Your task to perform on an android device: change notifications settings Image 0: 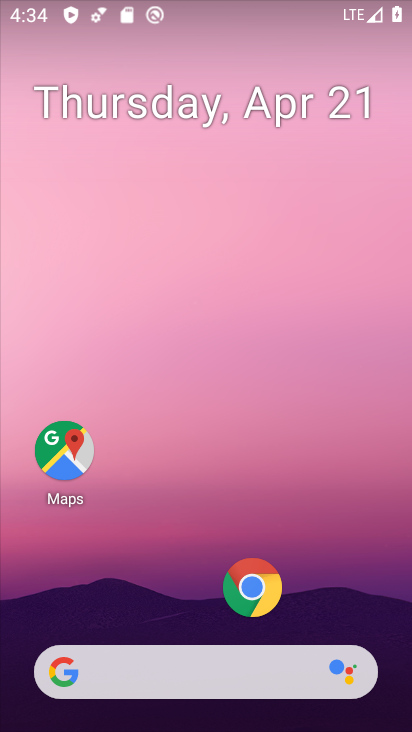
Step 0: drag from (148, 480) to (250, 109)
Your task to perform on an android device: change notifications settings Image 1: 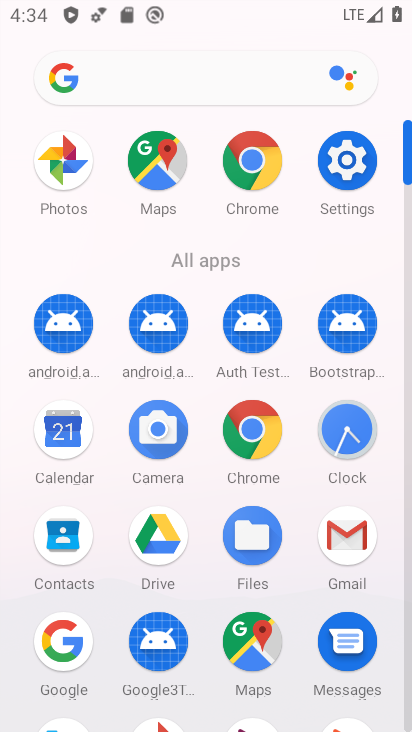
Step 1: click (356, 164)
Your task to perform on an android device: change notifications settings Image 2: 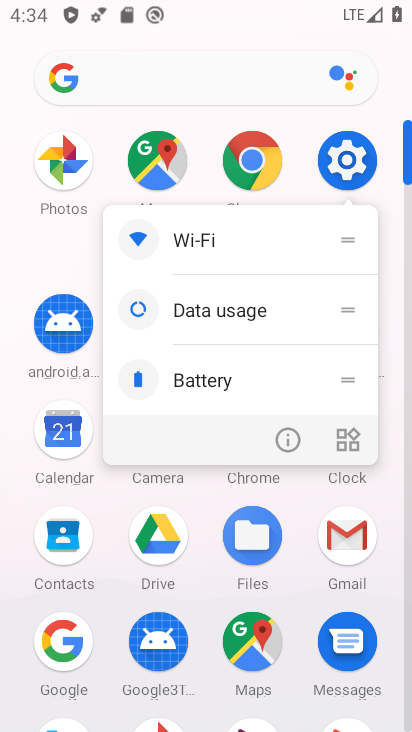
Step 2: click (353, 155)
Your task to perform on an android device: change notifications settings Image 3: 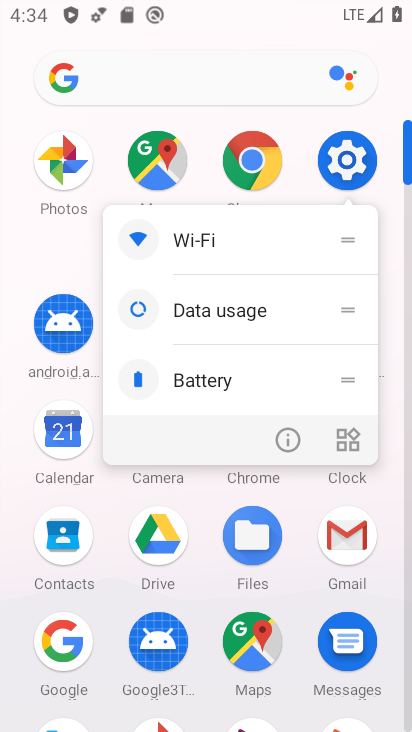
Step 3: click (356, 163)
Your task to perform on an android device: change notifications settings Image 4: 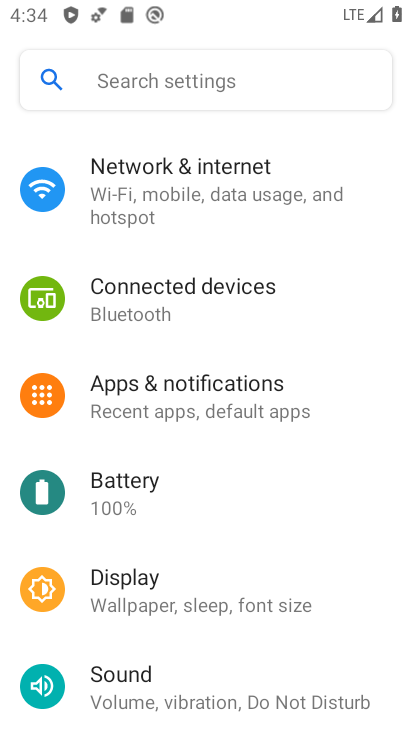
Step 4: drag from (202, 605) to (288, 347)
Your task to perform on an android device: change notifications settings Image 5: 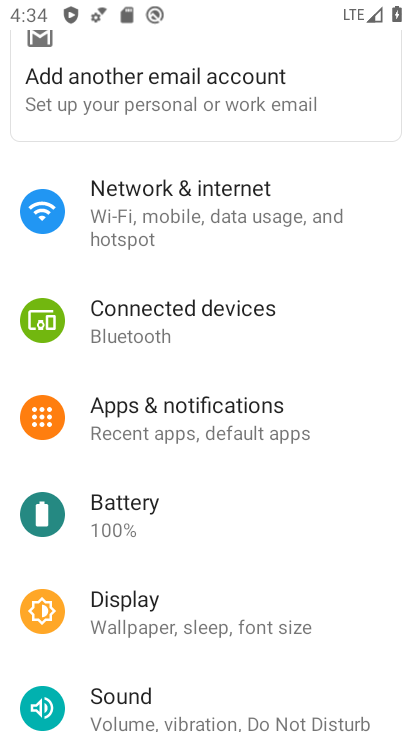
Step 5: click (242, 423)
Your task to perform on an android device: change notifications settings Image 6: 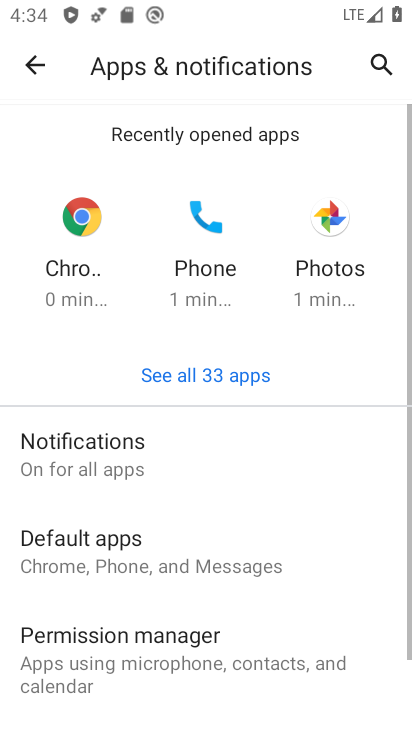
Step 6: click (172, 469)
Your task to perform on an android device: change notifications settings Image 7: 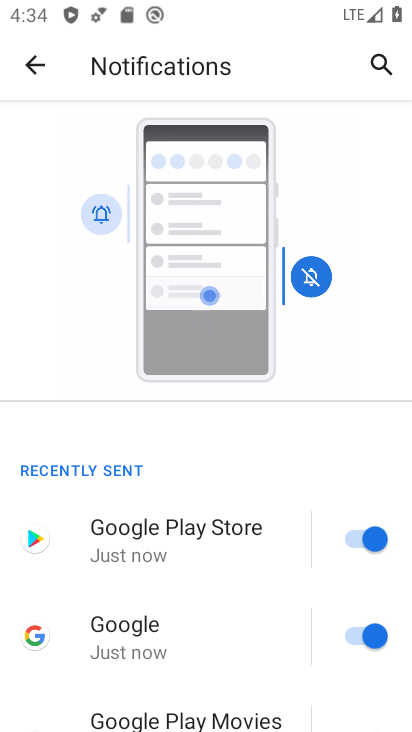
Step 7: click (351, 536)
Your task to perform on an android device: change notifications settings Image 8: 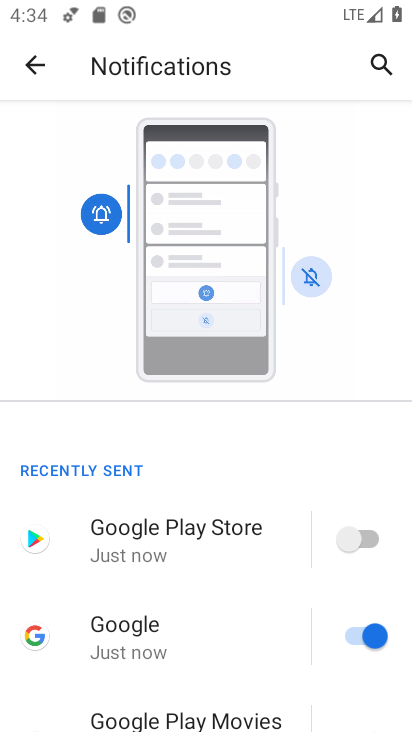
Step 8: click (361, 637)
Your task to perform on an android device: change notifications settings Image 9: 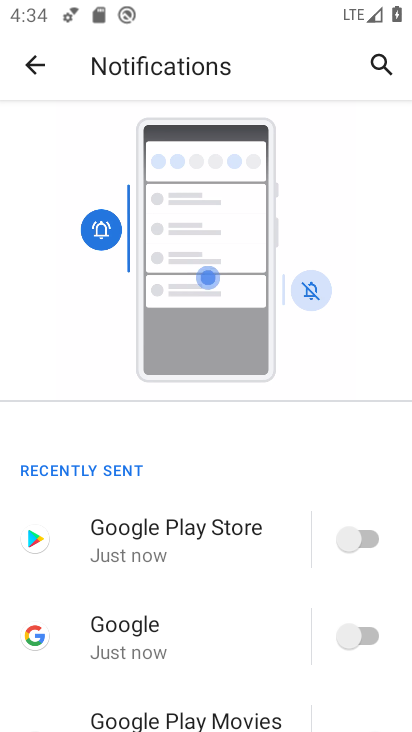
Step 9: drag from (225, 670) to (408, 305)
Your task to perform on an android device: change notifications settings Image 10: 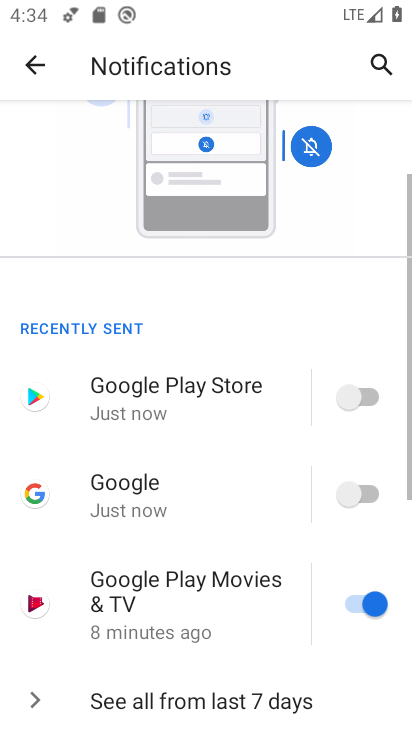
Step 10: drag from (207, 666) to (410, 322)
Your task to perform on an android device: change notifications settings Image 11: 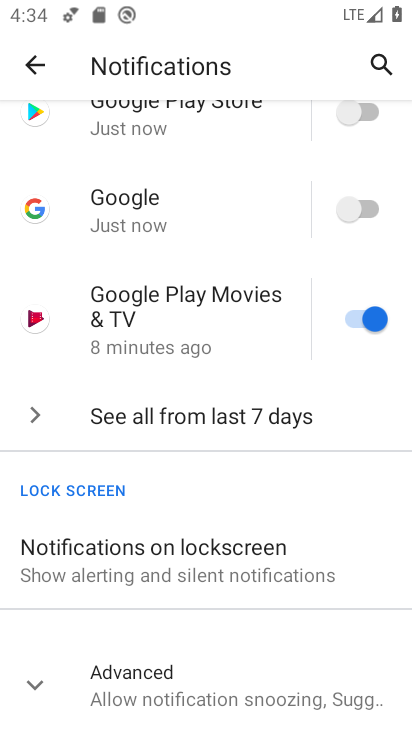
Step 11: click (182, 673)
Your task to perform on an android device: change notifications settings Image 12: 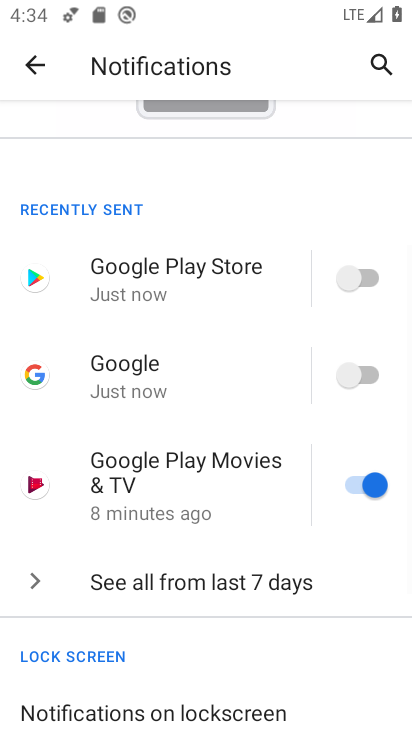
Step 12: click (205, 704)
Your task to perform on an android device: change notifications settings Image 13: 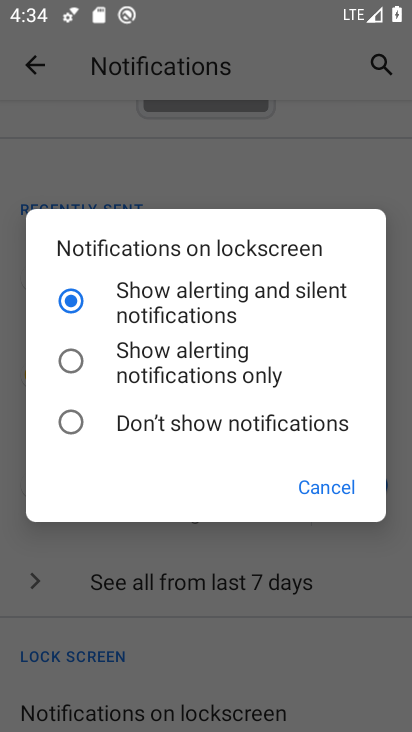
Step 13: click (322, 411)
Your task to perform on an android device: change notifications settings Image 14: 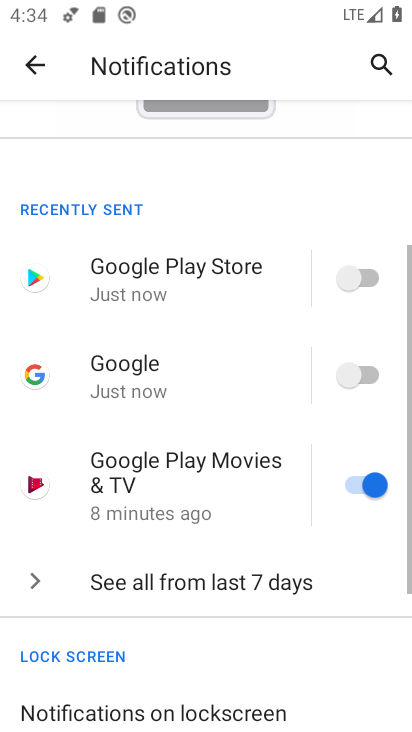
Step 14: drag from (209, 622) to (387, 11)
Your task to perform on an android device: change notifications settings Image 15: 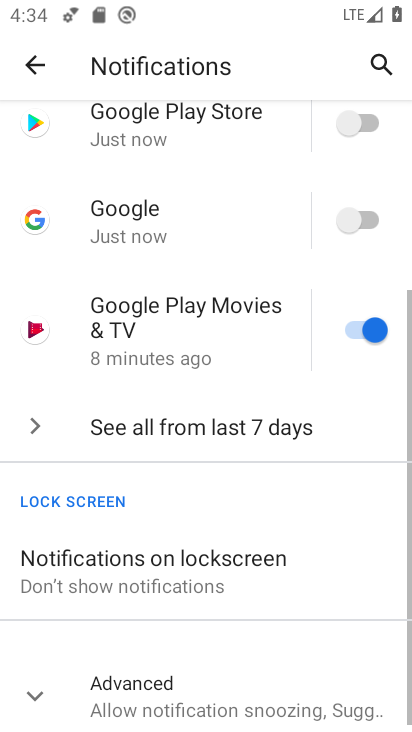
Step 15: click (194, 685)
Your task to perform on an android device: change notifications settings Image 16: 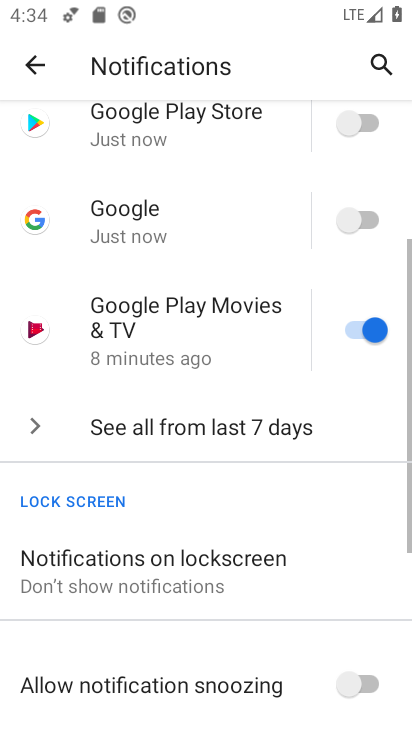
Step 16: click (384, 692)
Your task to perform on an android device: change notifications settings Image 17: 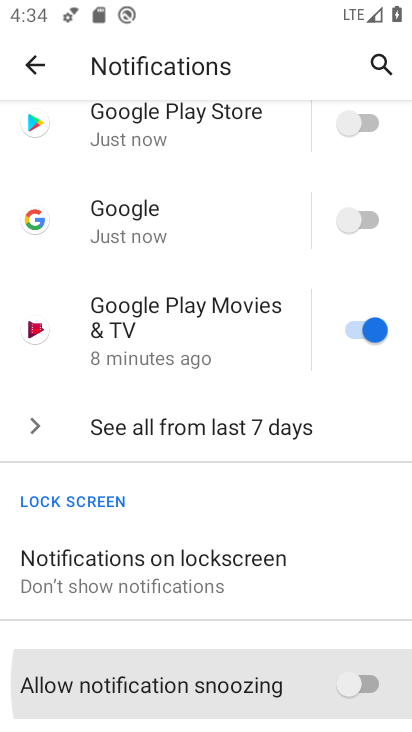
Step 17: drag from (282, 581) to (408, 378)
Your task to perform on an android device: change notifications settings Image 18: 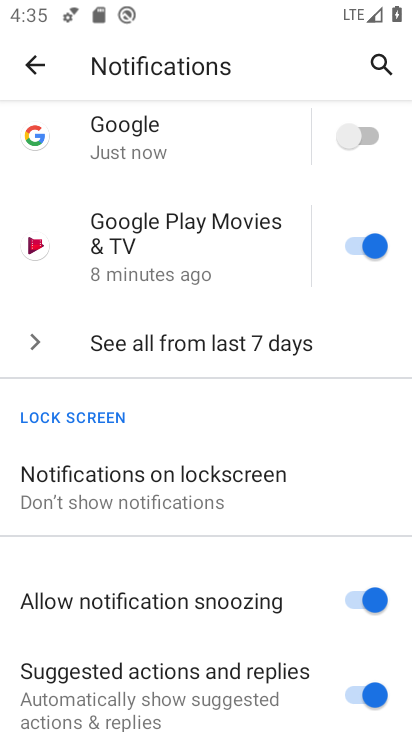
Step 18: click (347, 694)
Your task to perform on an android device: change notifications settings Image 19: 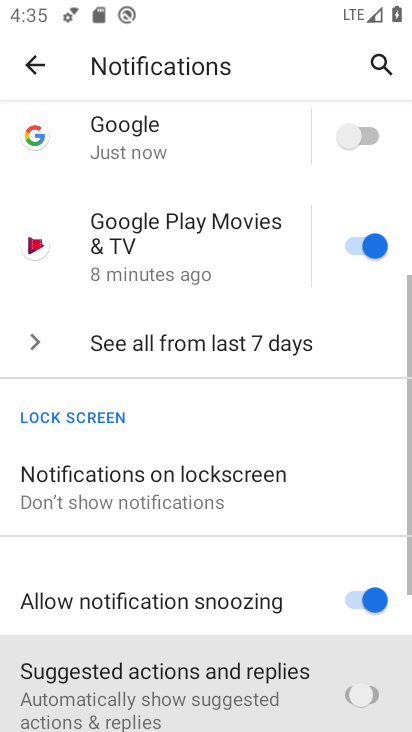
Step 19: drag from (217, 558) to (393, 8)
Your task to perform on an android device: change notifications settings Image 20: 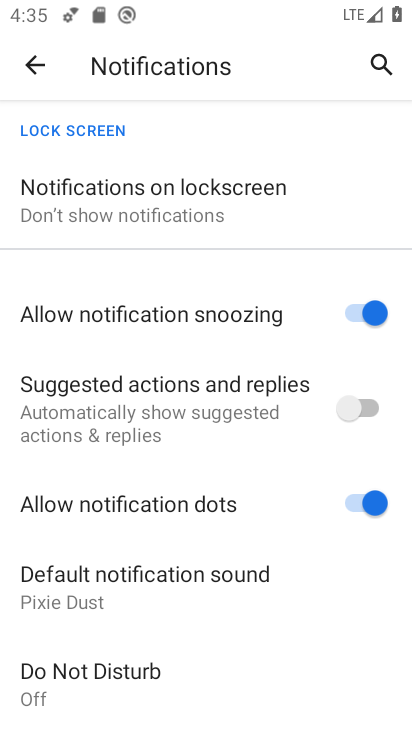
Step 20: click (362, 505)
Your task to perform on an android device: change notifications settings Image 21: 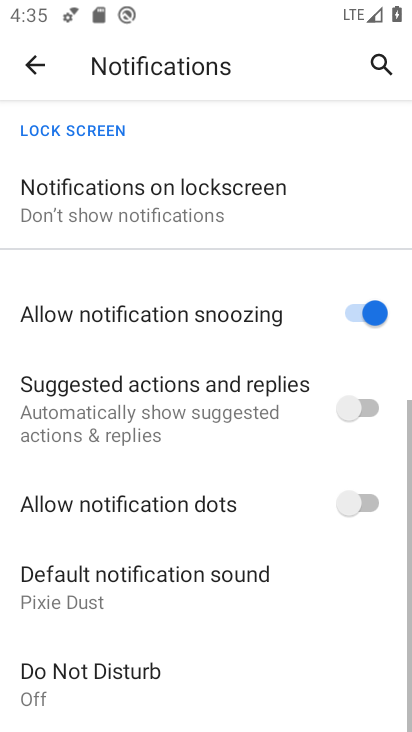
Step 21: click (220, 603)
Your task to perform on an android device: change notifications settings Image 22: 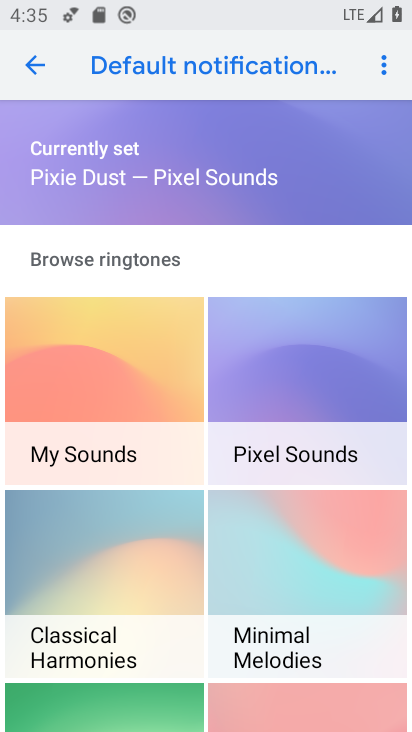
Step 22: click (96, 566)
Your task to perform on an android device: change notifications settings Image 23: 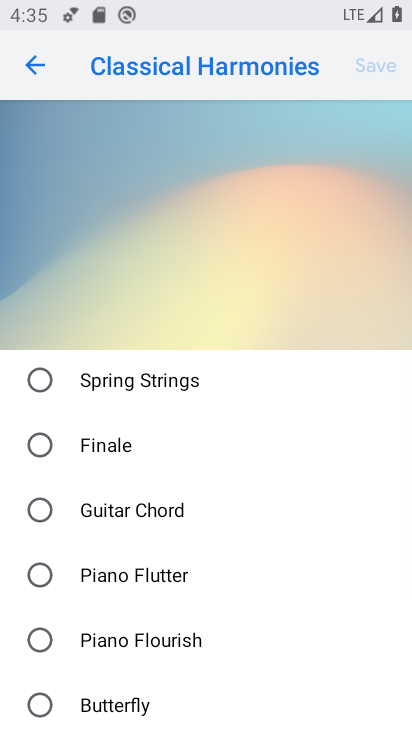
Step 23: click (159, 635)
Your task to perform on an android device: change notifications settings Image 24: 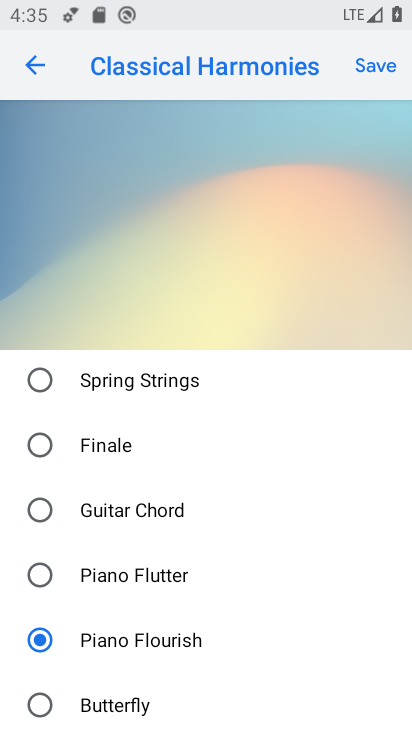
Step 24: task complete